Your task to perform on an android device: turn on improve location accuracy Image 0: 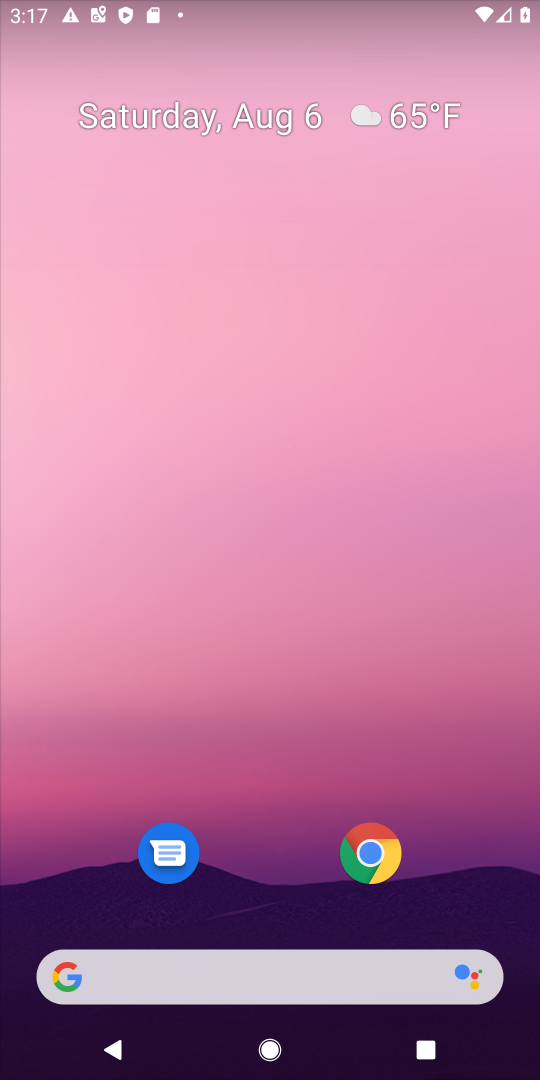
Step 0: drag from (186, 871) to (396, 27)
Your task to perform on an android device: turn on improve location accuracy Image 1: 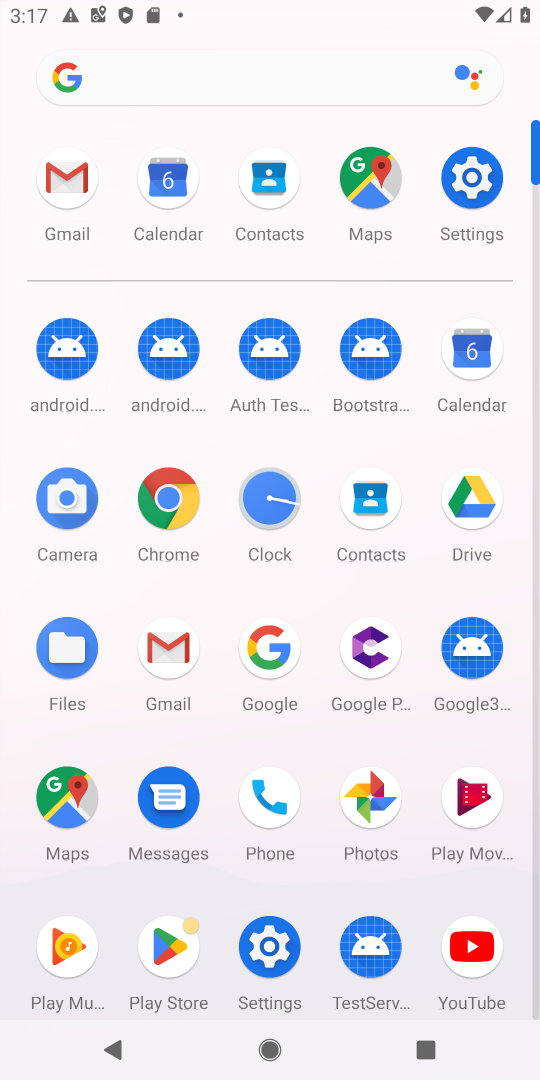
Step 1: click (443, 166)
Your task to perform on an android device: turn on improve location accuracy Image 2: 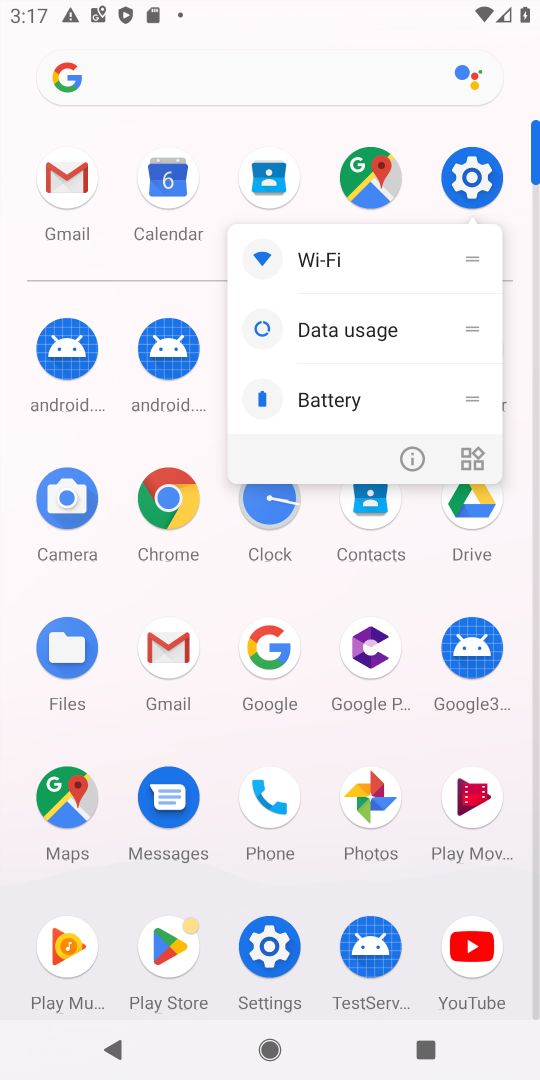
Step 2: click (491, 155)
Your task to perform on an android device: turn on improve location accuracy Image 3: 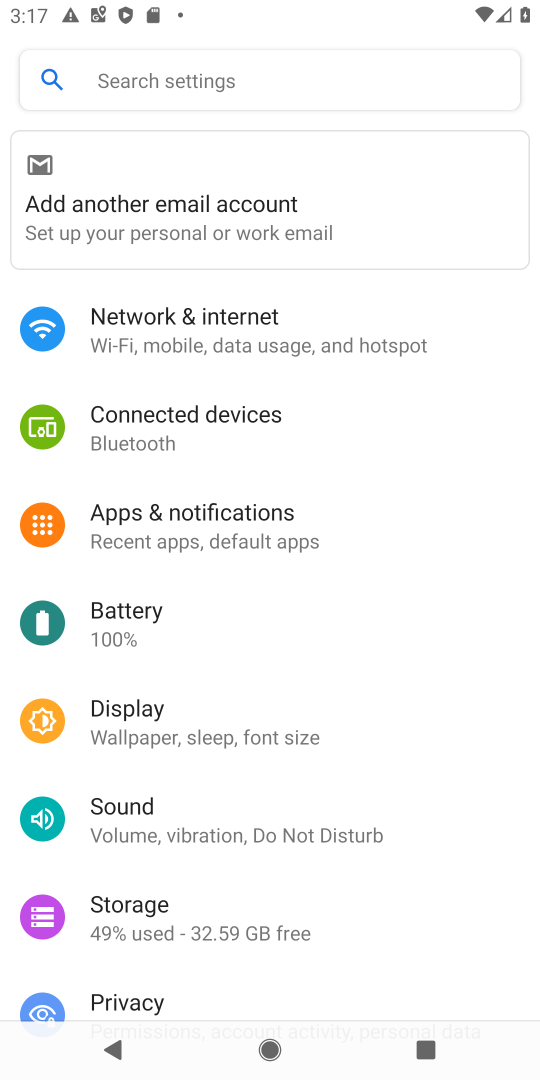
Step 3: drag from (200, 823) to (316, 175)
Your task to perform on an android device: turn on improve location accuracy Image 4: 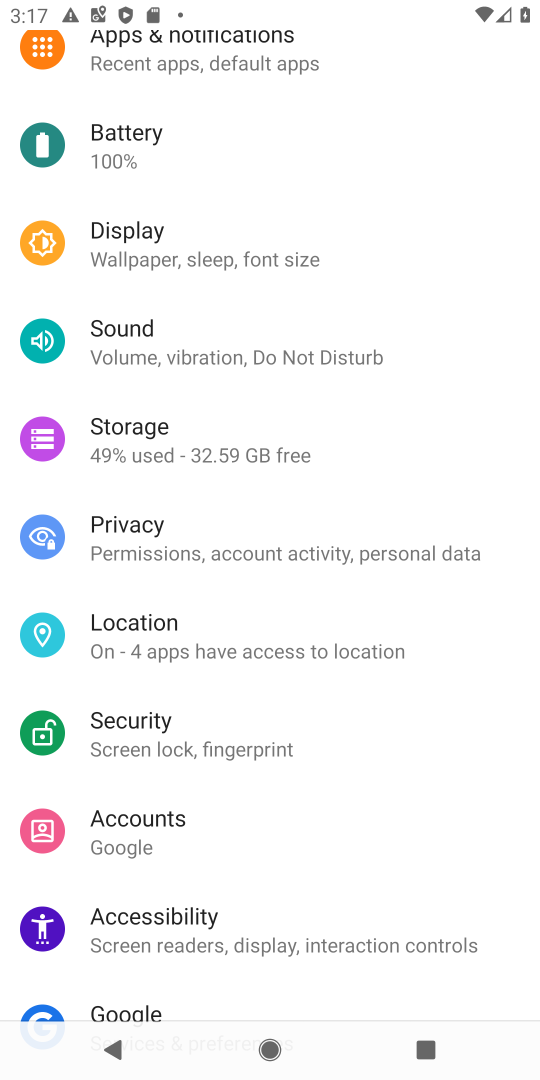
Step 4: click (143, 630)
Your task to perform on an android device: turn on improve location accuracy Image 5: 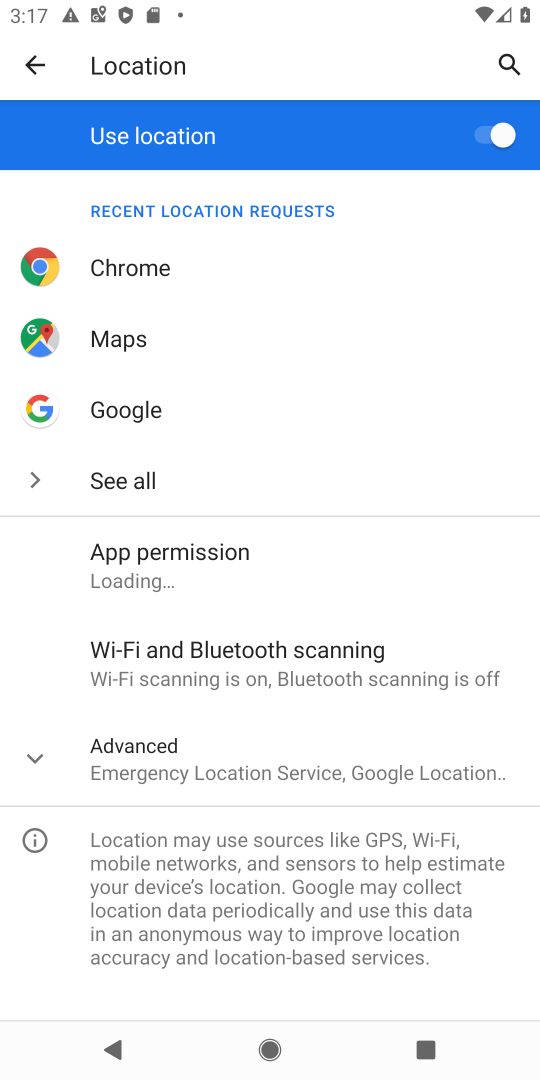
Step 5: click (165, 758)
Your task to perform on an android device: turn on improve location accuracy Image 6: 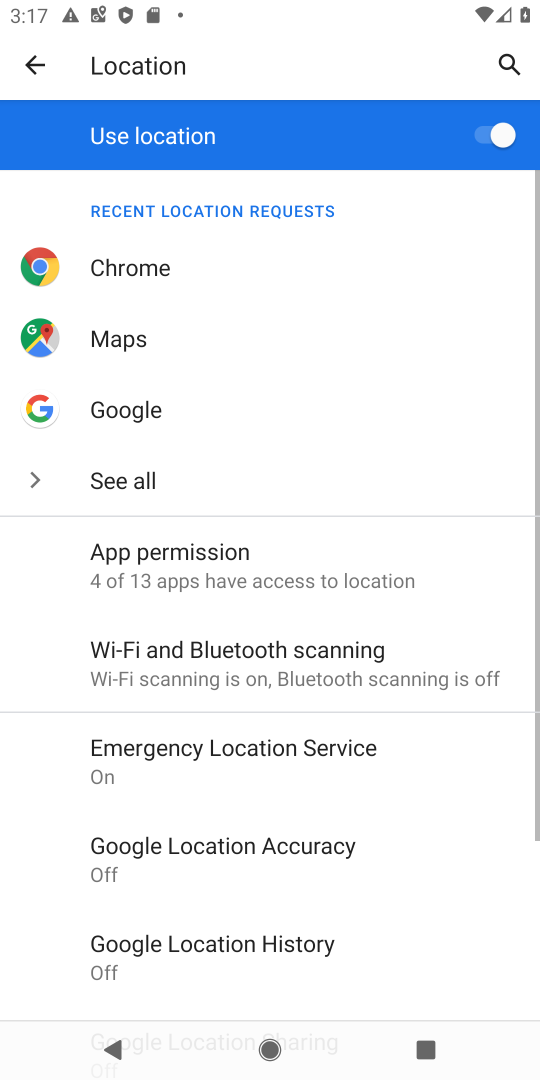
Step 6: click (311, 860)
Your task to perform on an android device: turn on improve location accuracy Image 7: 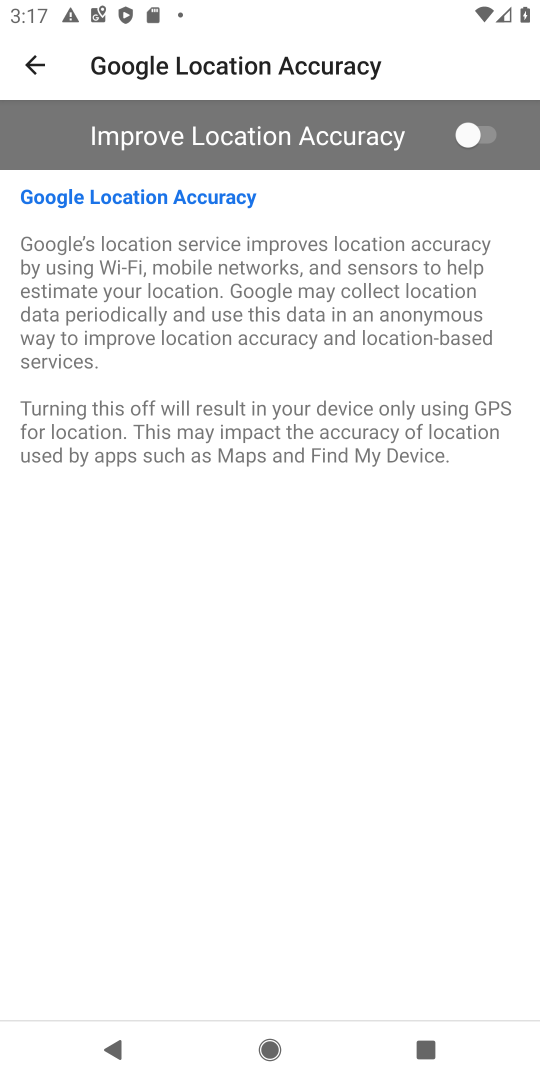
Step 7: click (463, 132)
Your task to perform on an android device: turn on improve location accuracy Image 8: 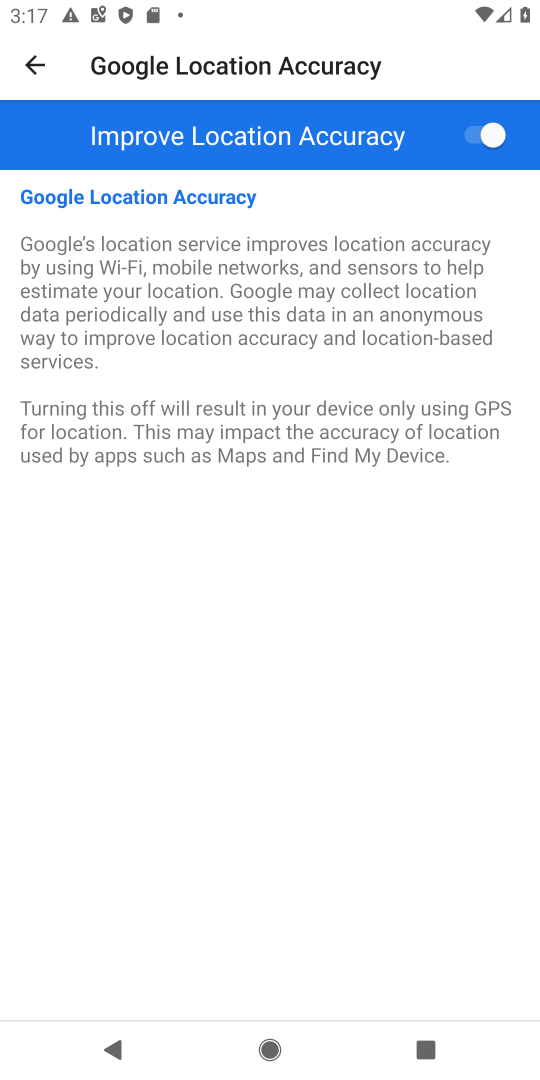
Step 8: task complete